Your task to perform on an android device: Clear the shopping cart on amazon. Add jbl flip 4 to the cart on amazon, then select checkout. Image 0: 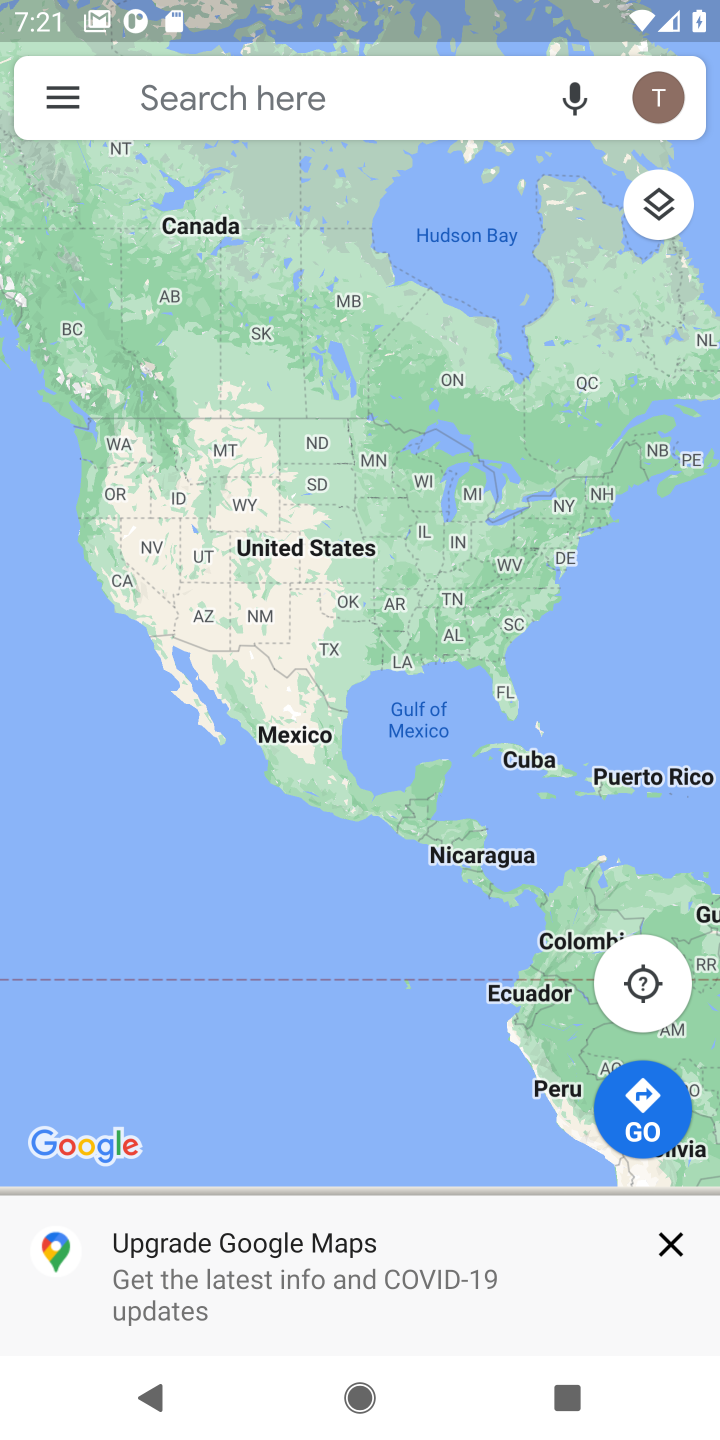
Step 0: click (677, 1251)
Your task to perform on an android device: Clear the shopping cart on amazon. Add jbl flip 4 to the cart on amazon, then select checkout. Image 1: 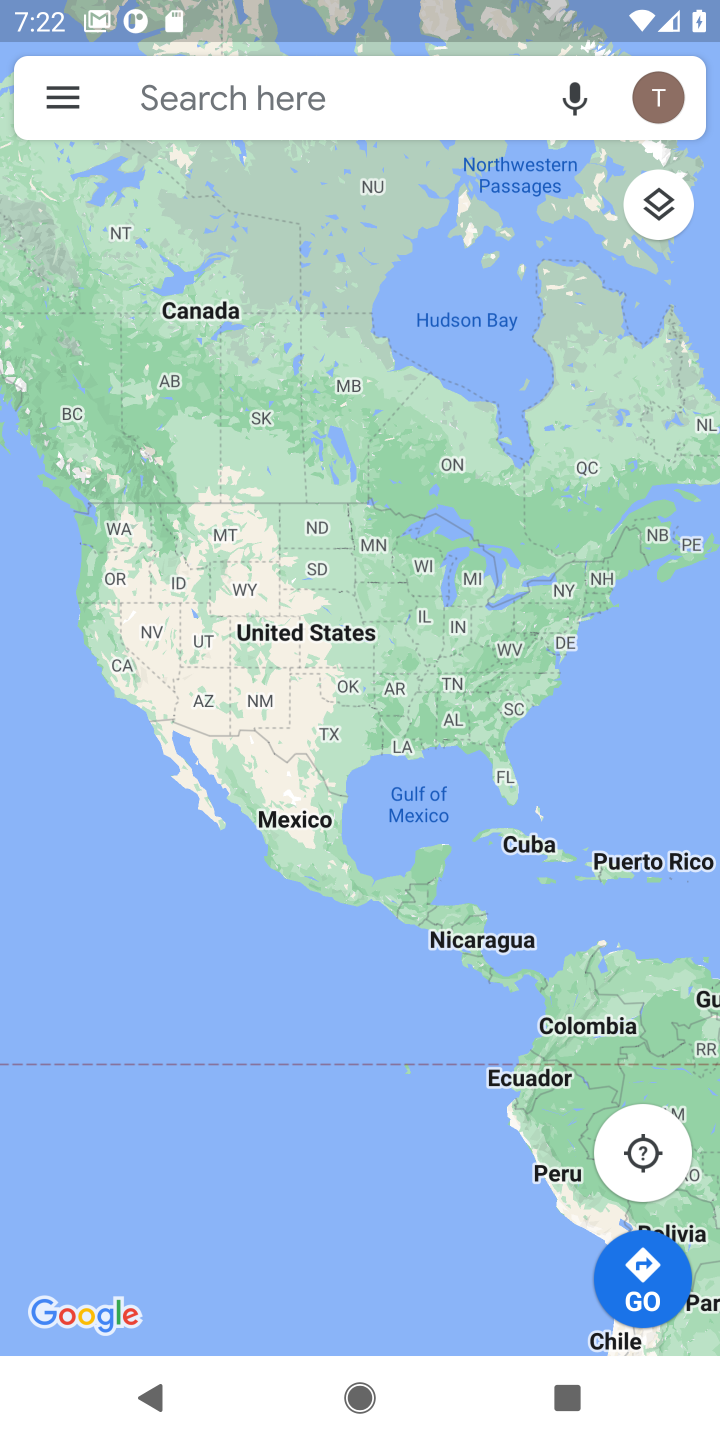
Step 1: press home button
Your task to perform on an android device: Clear the shopping cart on amazon. Add jbl flip 4 to the cart on amazon, then select checkout. Image 2: 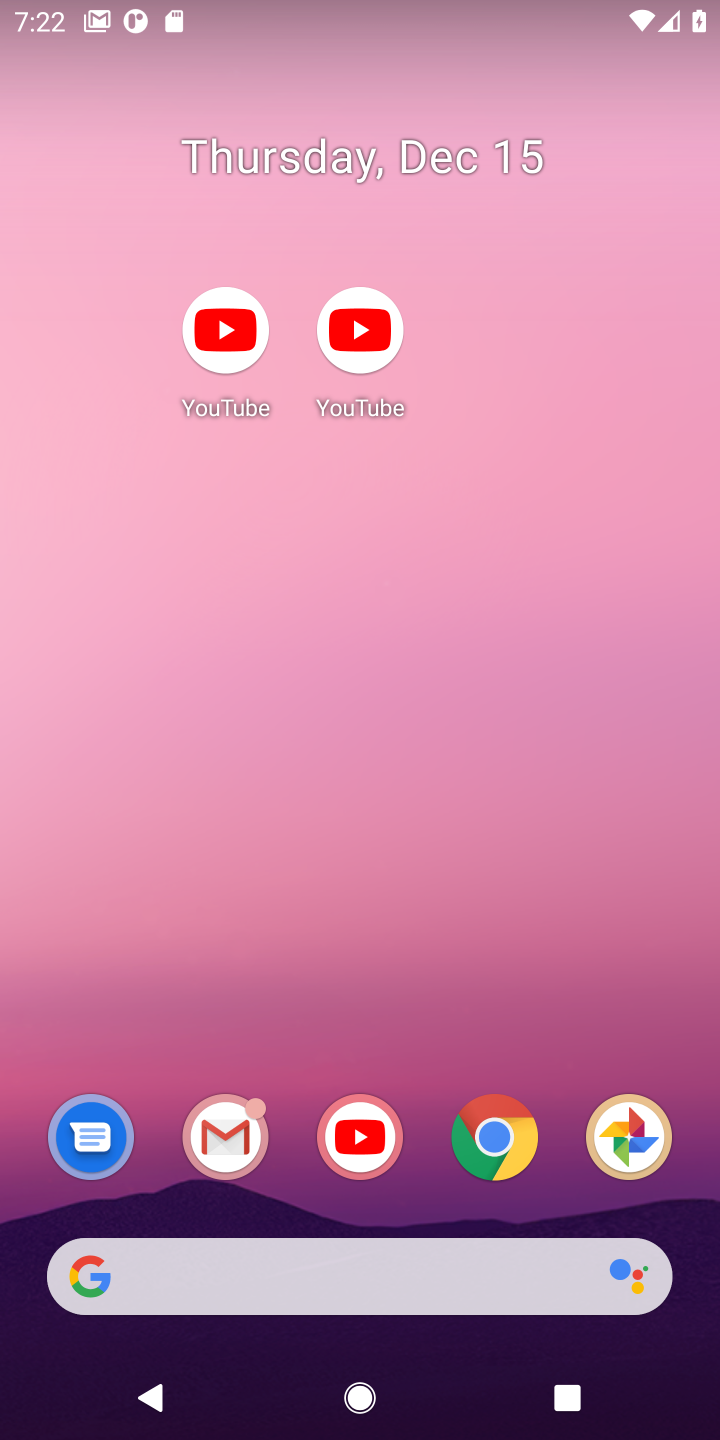
Step 2: drag from (368, 1018) to (437, 527)
Your task to perform on an android device: Clear the shopping cart on amazon. Add jbl flip 4 to the cart on amazon, then select checkout. Image 3: 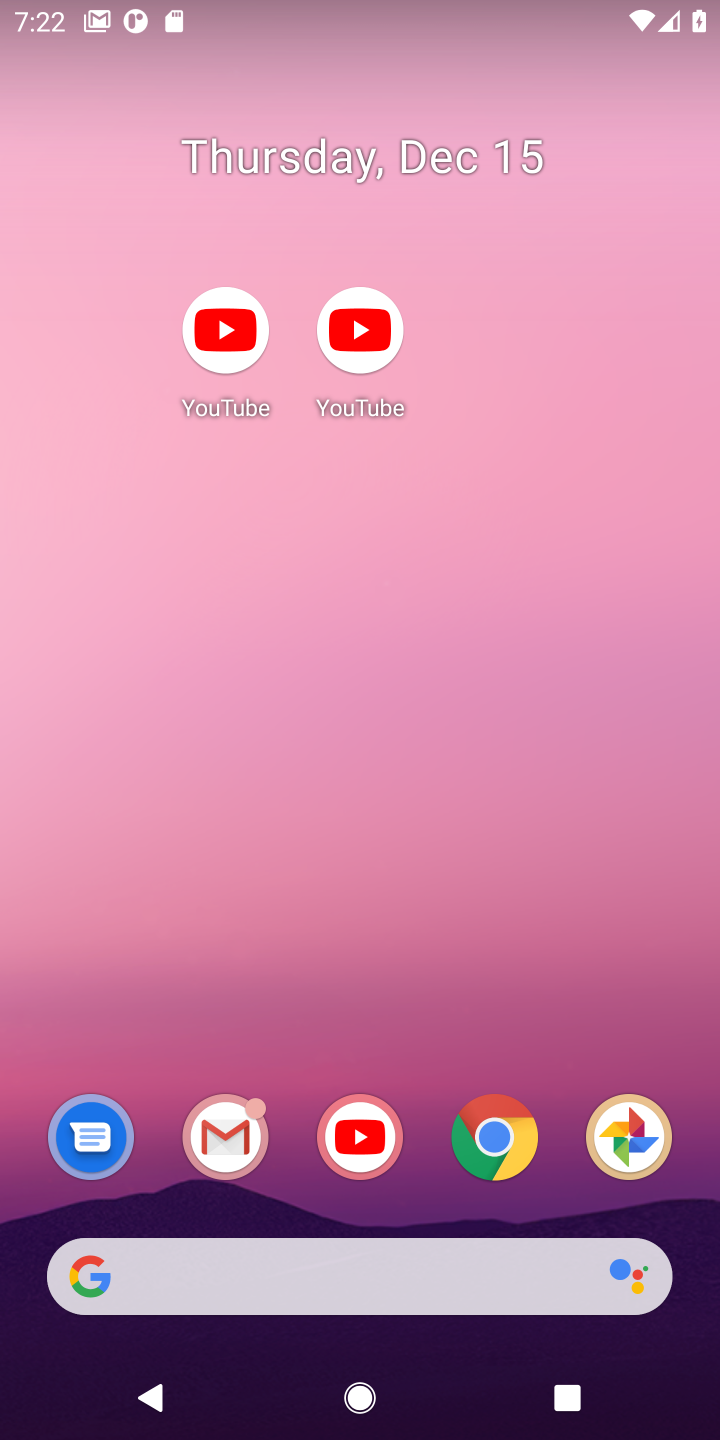
Step 3: drag from (360, 1106) to (378, 373)
Your task to perform on an android device: Clear the shopping cart on amazon. Add jbl flip 4 to the cart on amazon, then select checkout. Image 4: 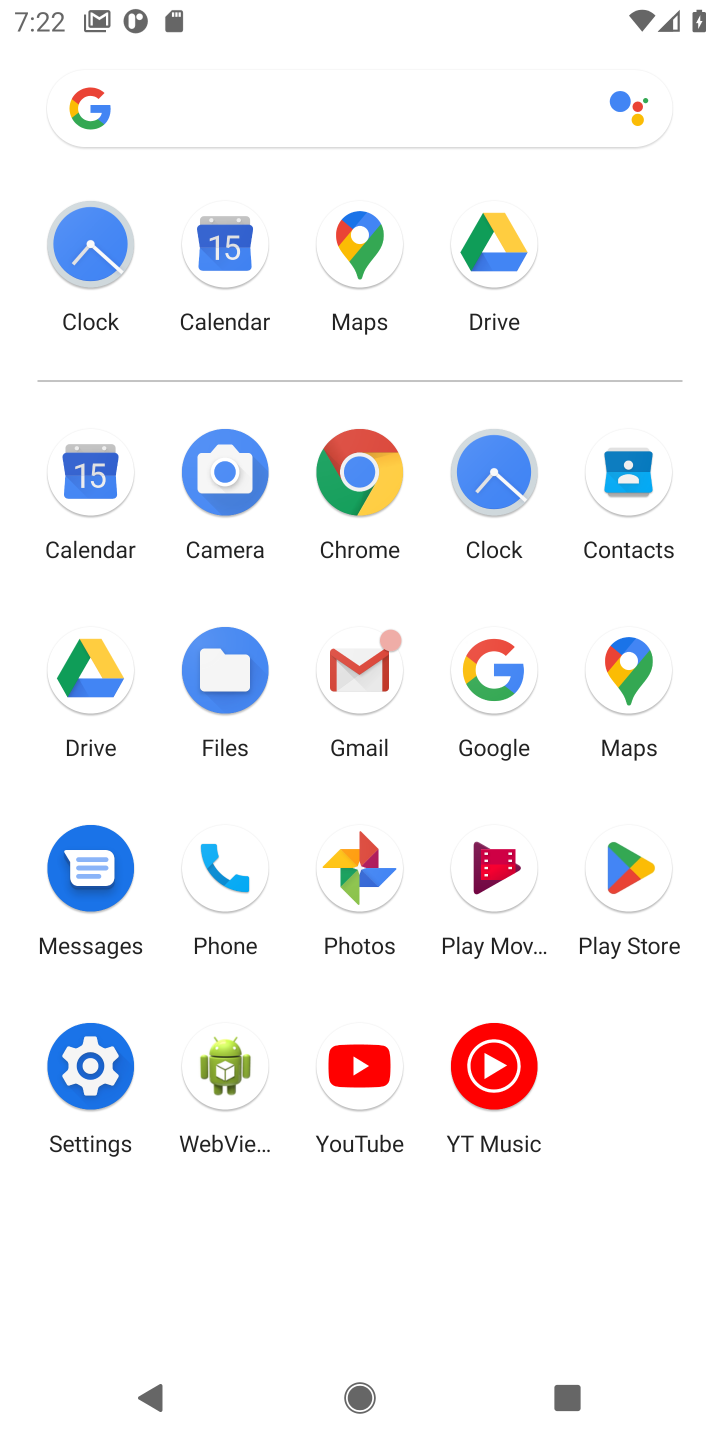
Step 4: click (489, 673)
Your task to perform on an android device: Clear the shopping cart on amazon. Add jbl flip 4 to the cart on amazon, then select checkout. Image 5: 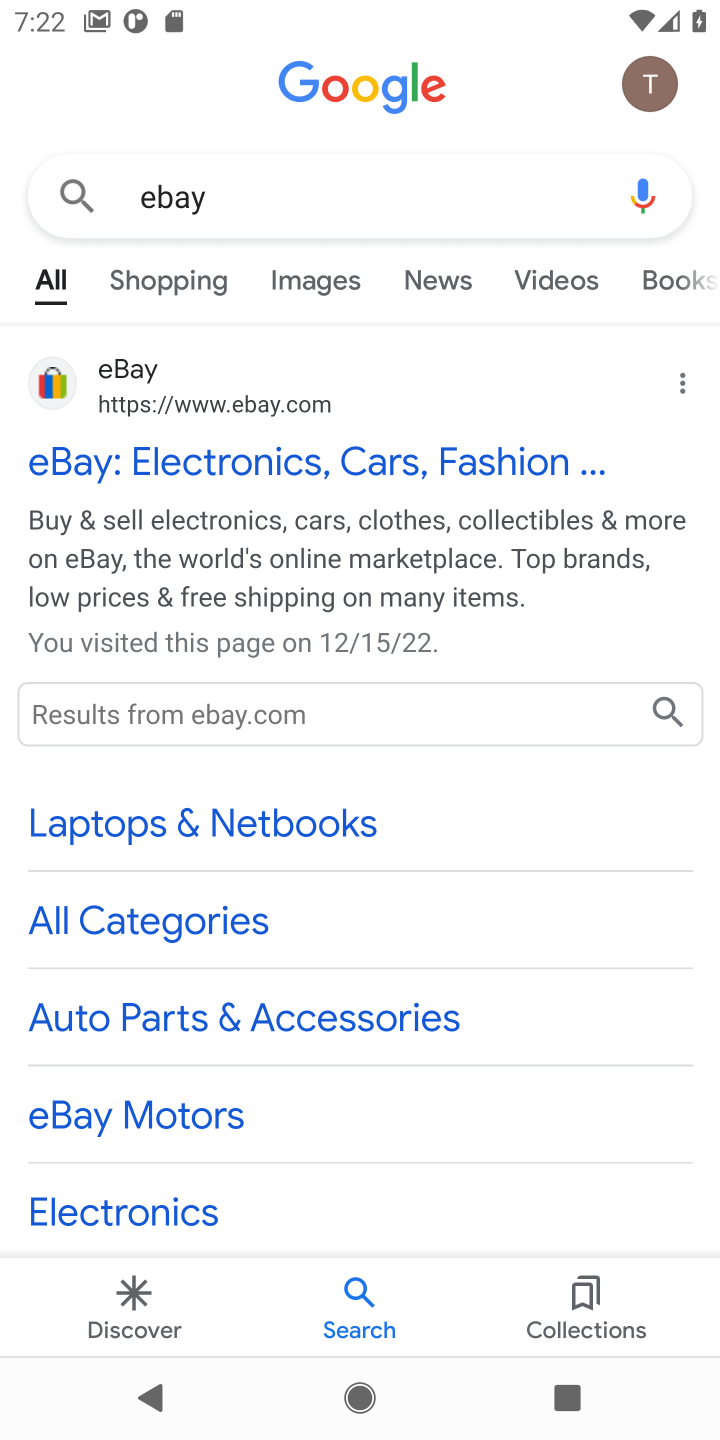
Step 5: click (212, 211)
Your task to perform on an android device: Clear the shopping cart on amazon. Add jbl flip 4 to the cart on amazon, then select checkout. Image 6: 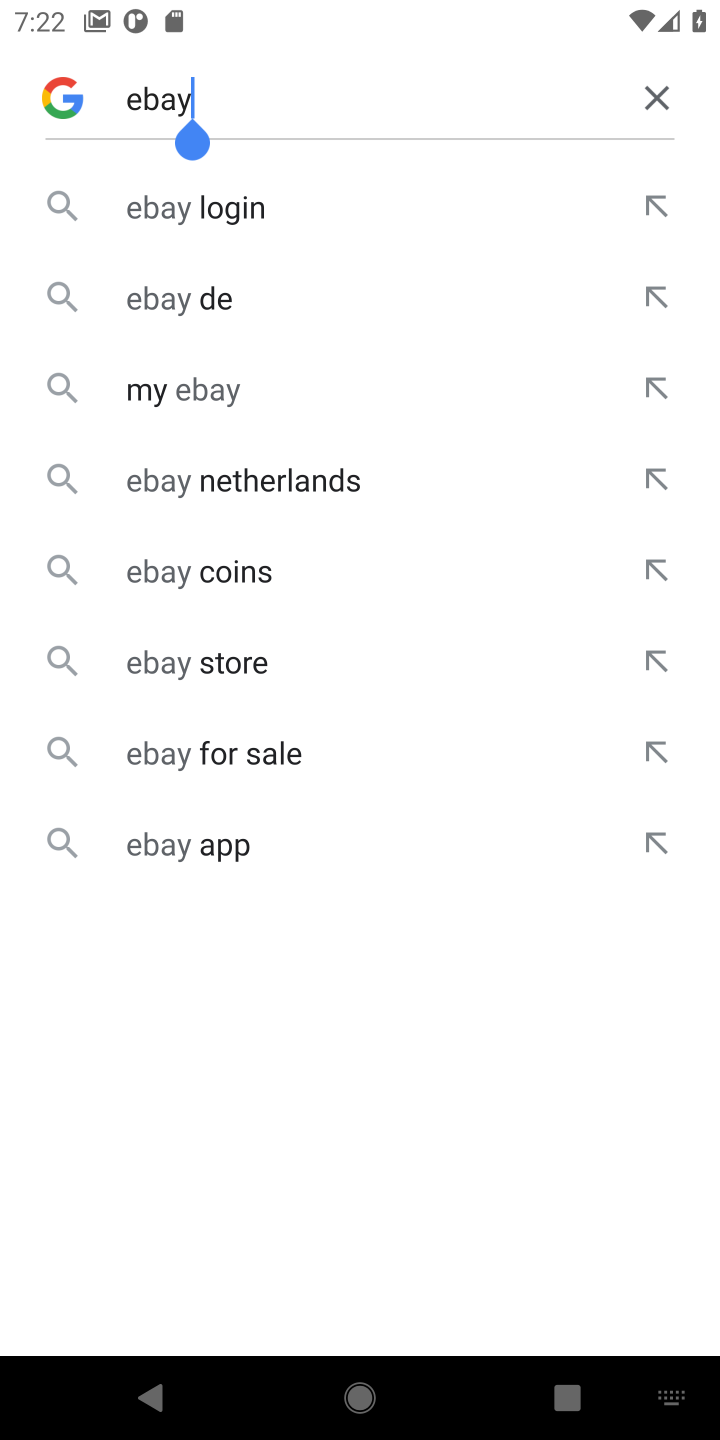
Step 6: click (648, 107)
Your task to perform on an android device: Clear the shopping cart on amazon. Add jbl flip 4 to the cart on amazon, then select checkout. Image 7: 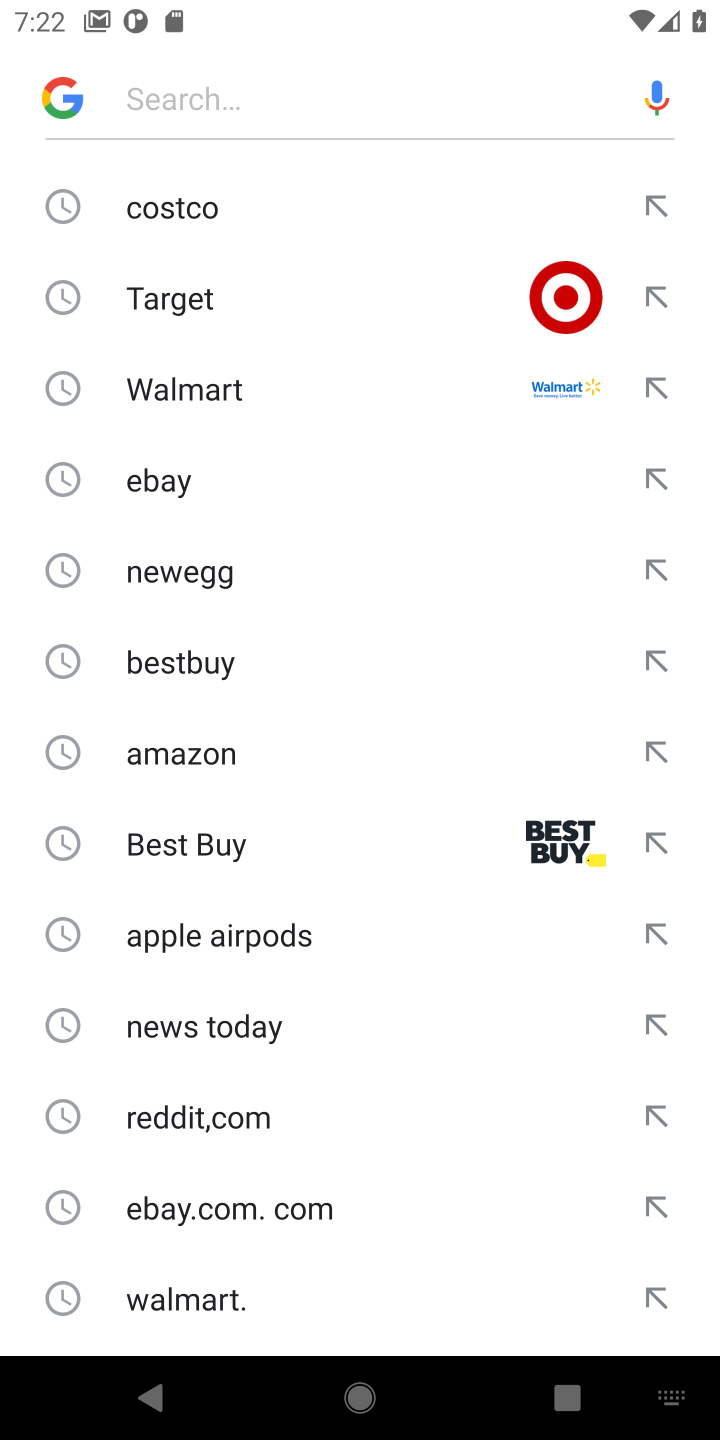
Step 7: click (189, 739)
Your task to perform on an android device: Clear the shopping cart on amazon. Add jbl flip 4 to the cart on amazon, then select checkout. Image 8: 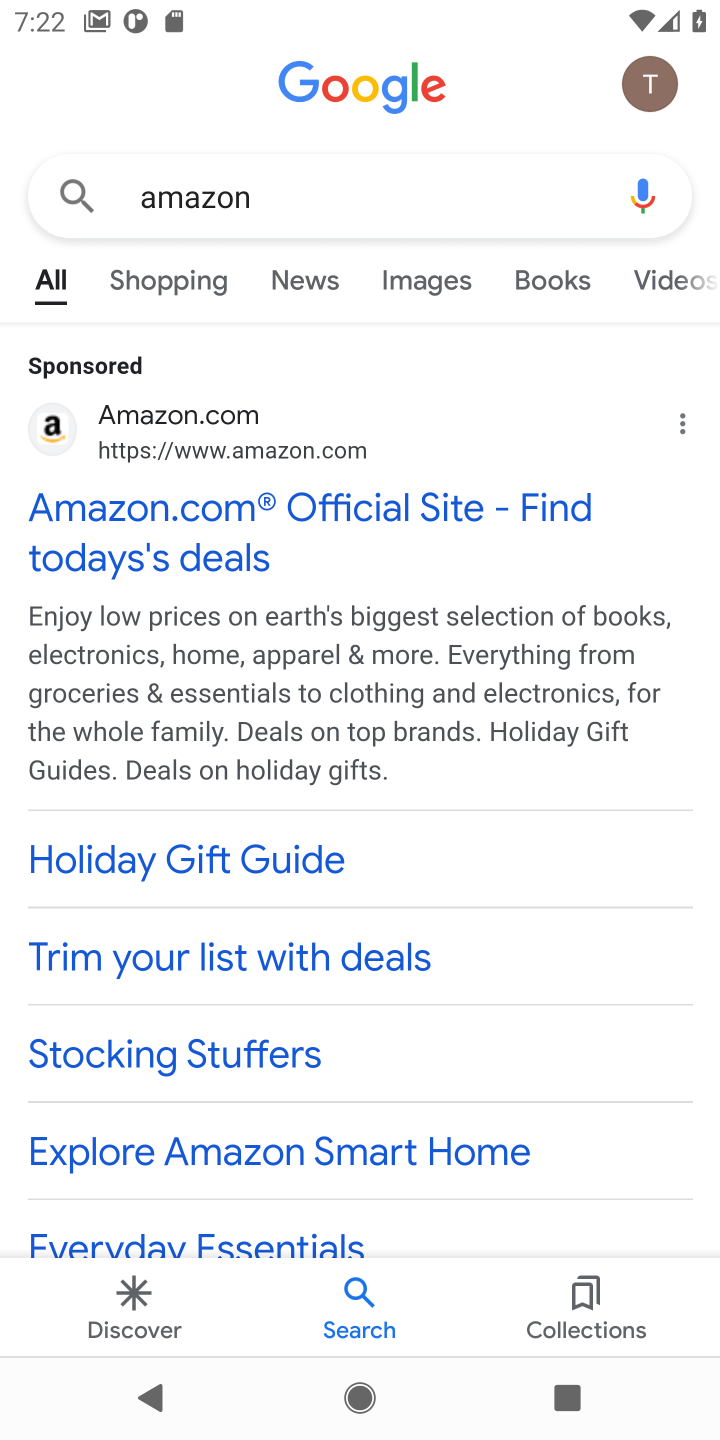
Step 8: click (186, 541)
Your task to perform on an android device: Clear the shopping cart on amazon. Add jbl flip 4 to the cart on amazon, then select checkout. Image 9: 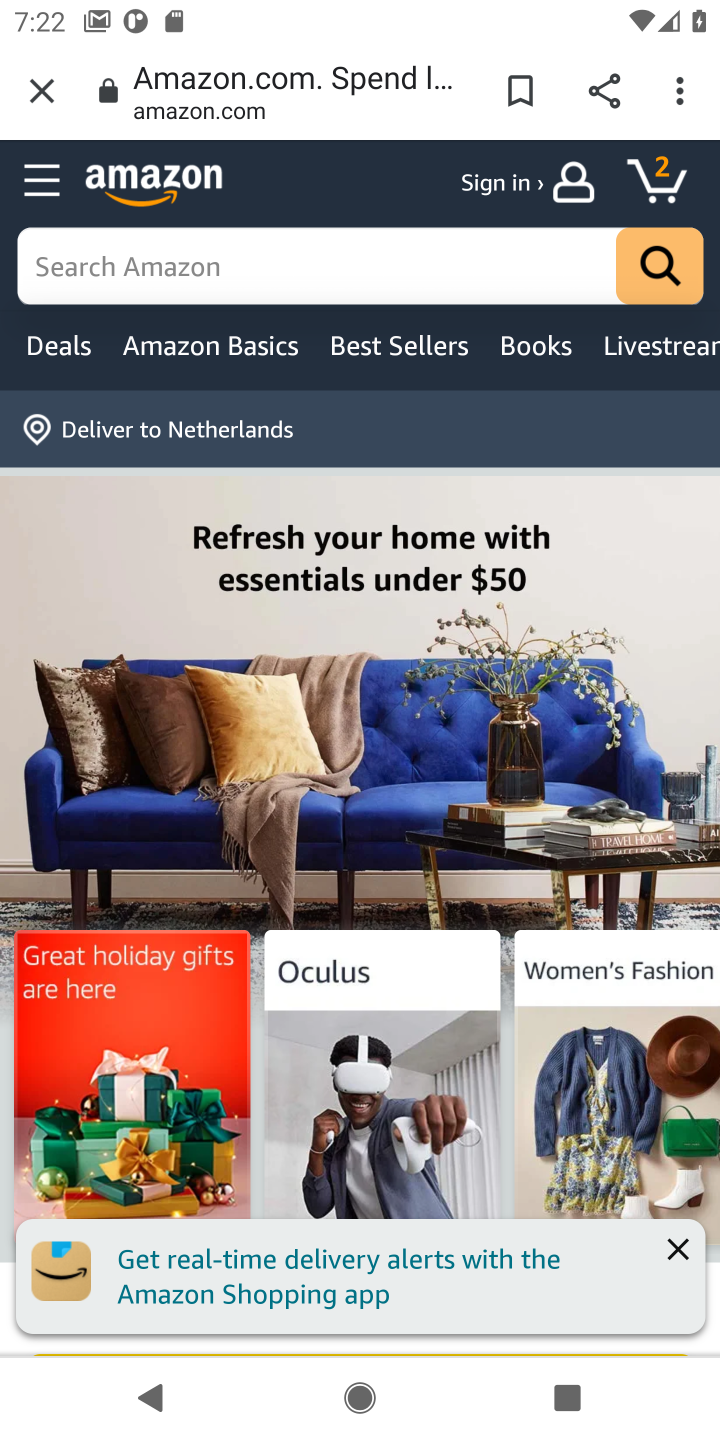
Step 9: click (662, 173)
Your task to perform on an android device: Clear the shopping cart on amazon. Add jbl flip 4 to the cart on amazon, then select checkout. Image 10: 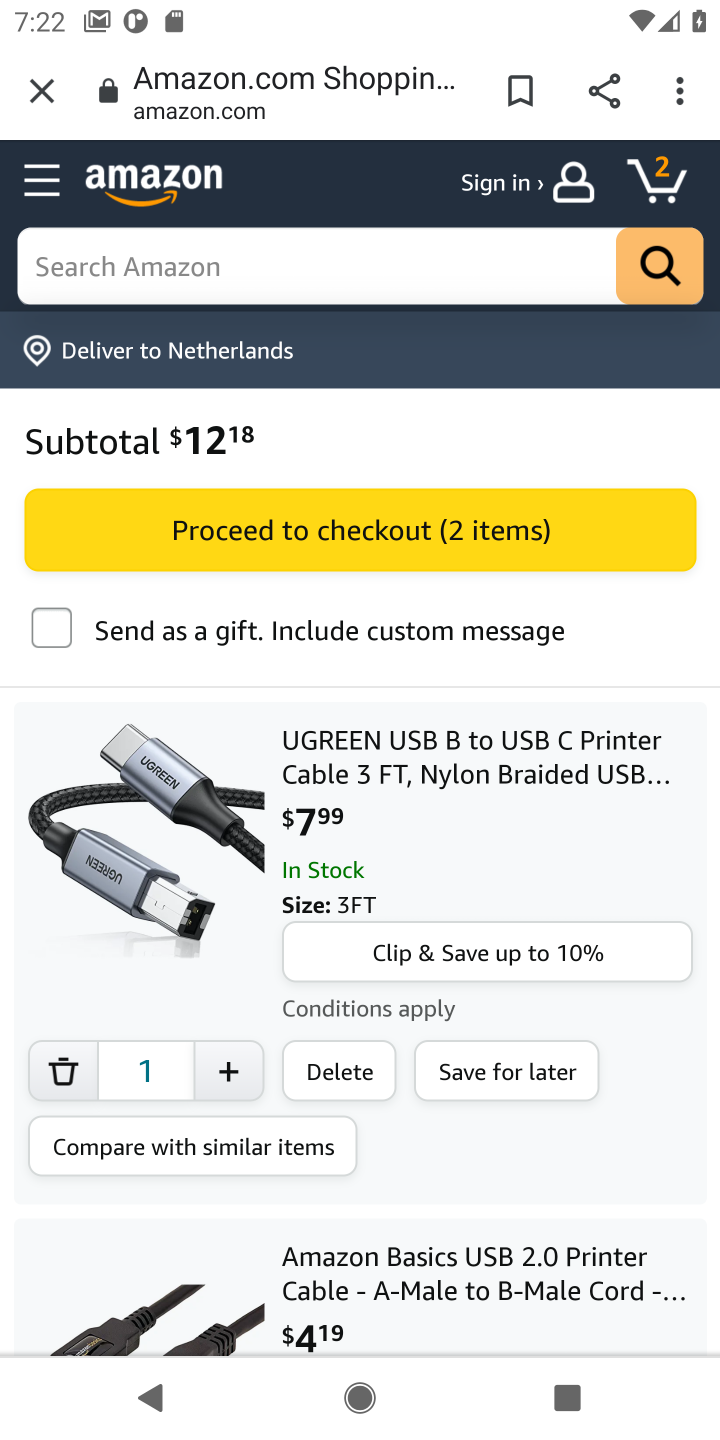
Step 10: click (53, 1067)
Your task to perform on an android device: Clear the shopping cart on amazon. Add jbl flip 4 to the cart on amazon, then select checkout. Image 11: 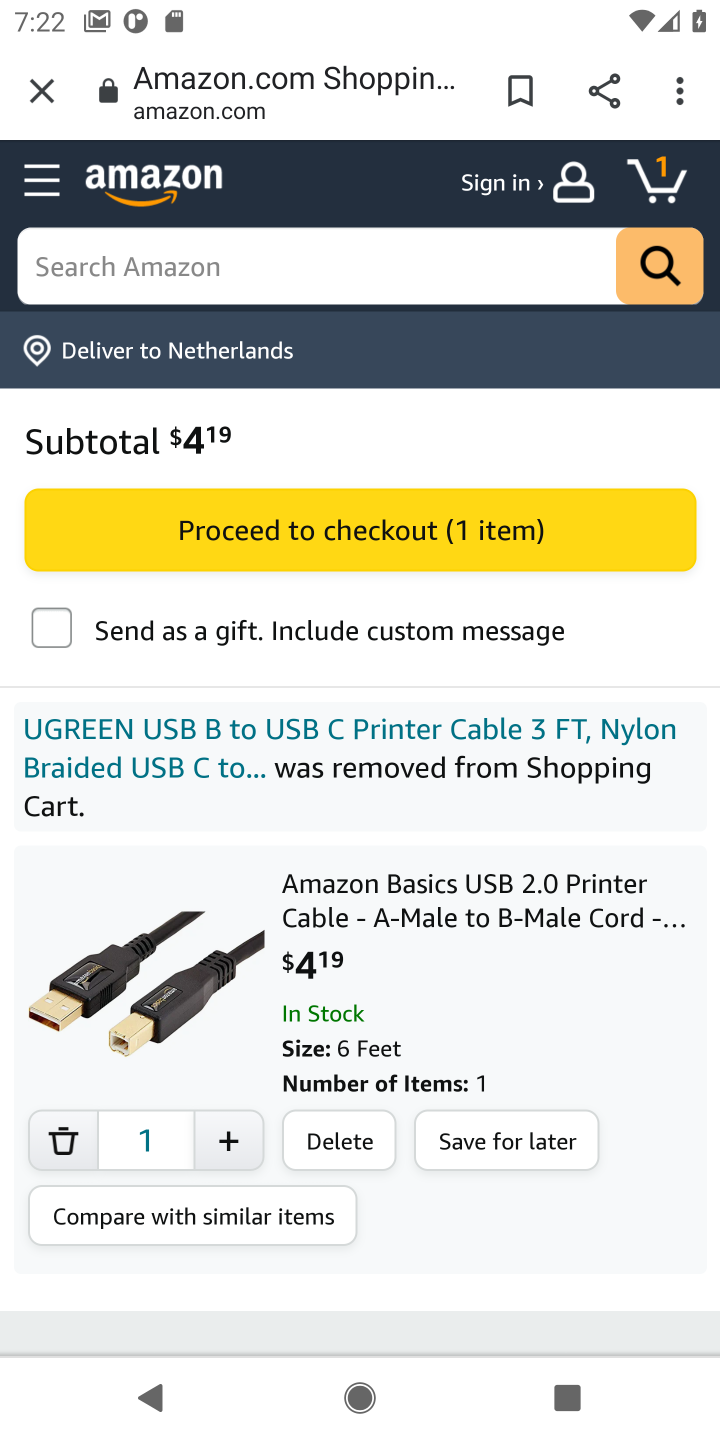
Step 11: click (59, 1126)
Your task to perform on an android device: Clear the shopping cart on amazon. Add jbl flip 4 to the cart on amazon, then select checkout. Image 12: 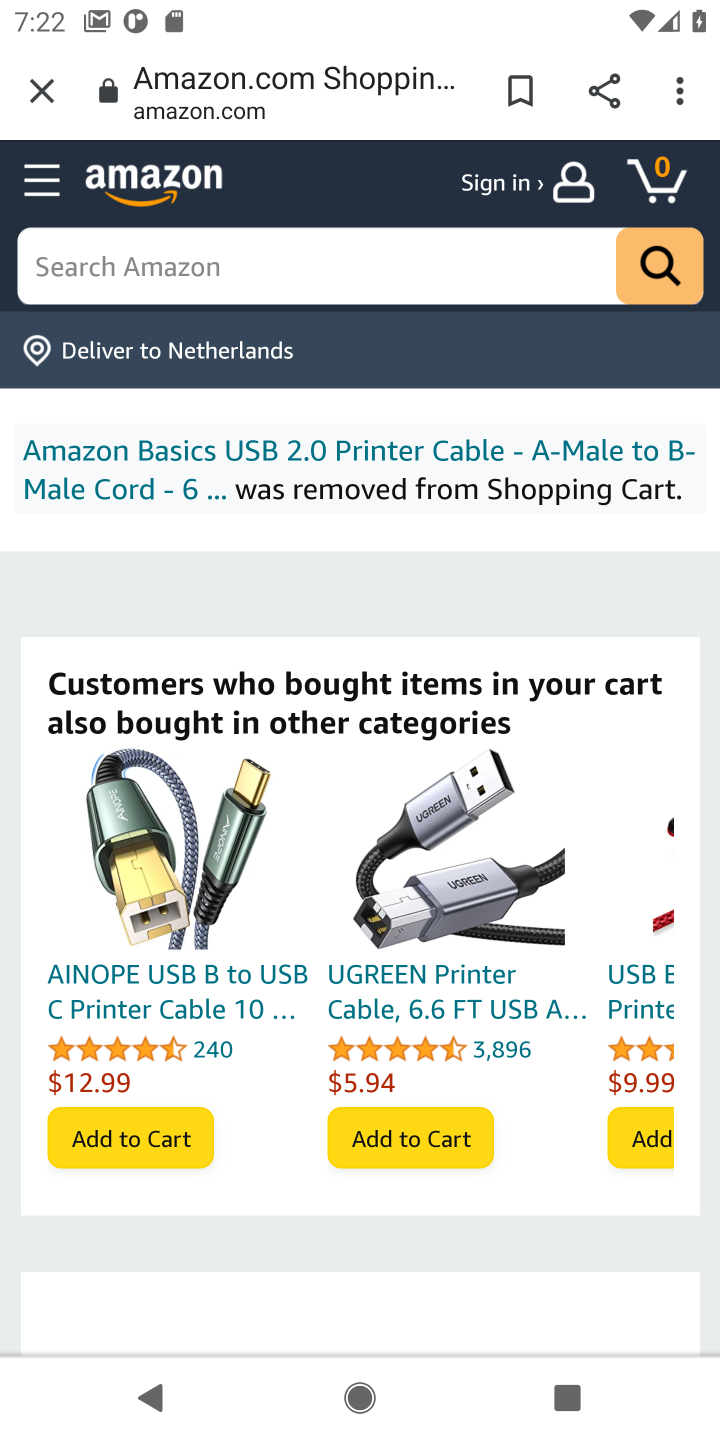
Step 12: click (307, 277)
Your task to perform on an android device: Clear the shopping cart on amazon. Add jbl flip 4 to the cart on amazon, then select checkout. Image 13: 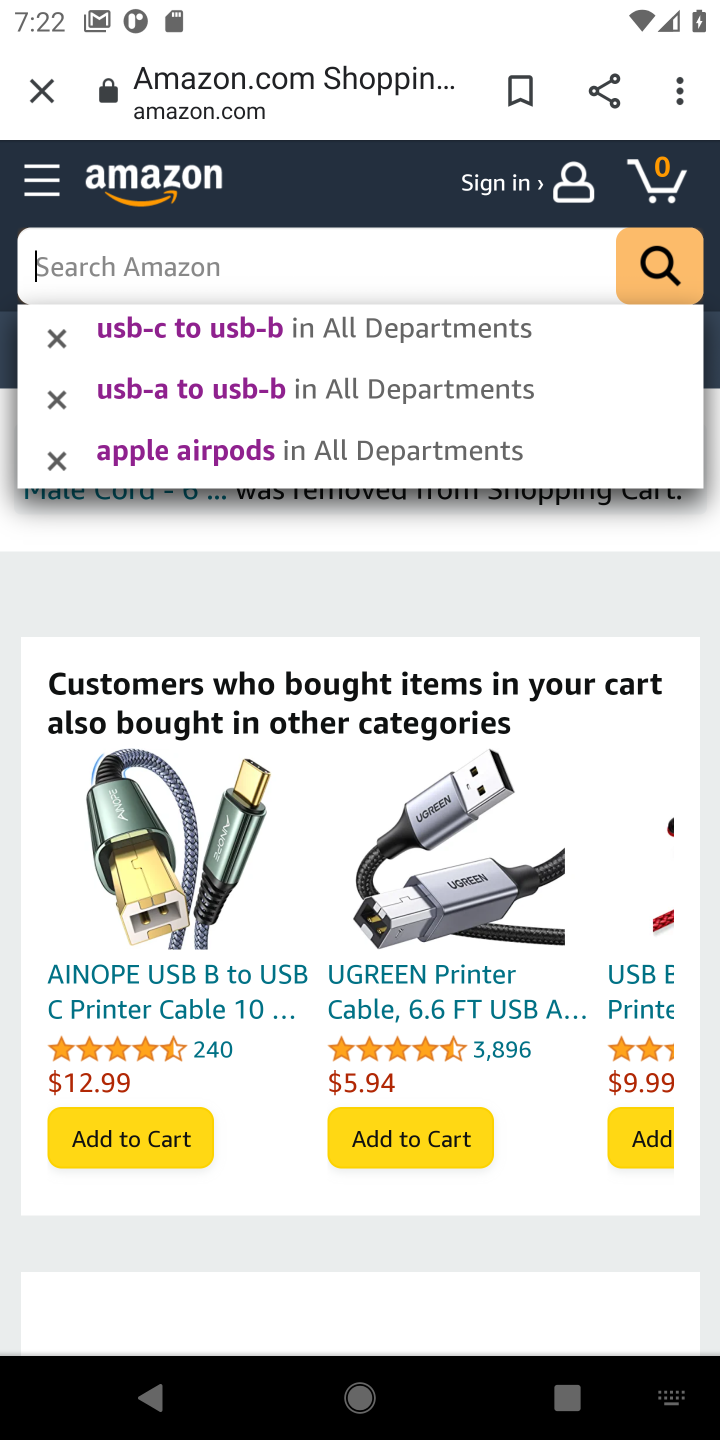
Step 13: type "jbl flip 4 "
Your task to perform on an android device: Clear the shopping cart on amazon. Add jbl flip 4 to the cart on amazon, then select checkout. Image 14: 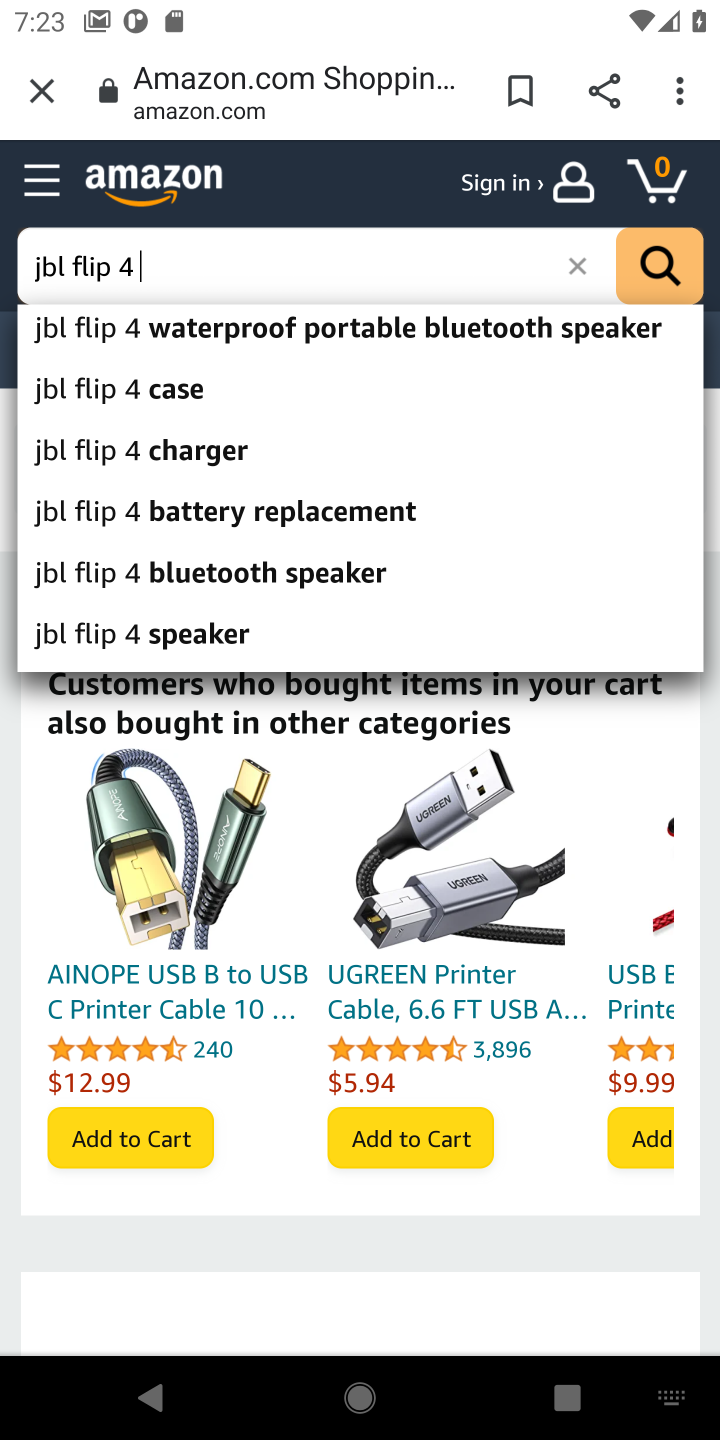
Step 14: click (152, 391)
Your task to perform on an android device: Clear the shopping cart on amazon. Add jbl flip 4 to the cart on amazon, then select checkout. Image 15: 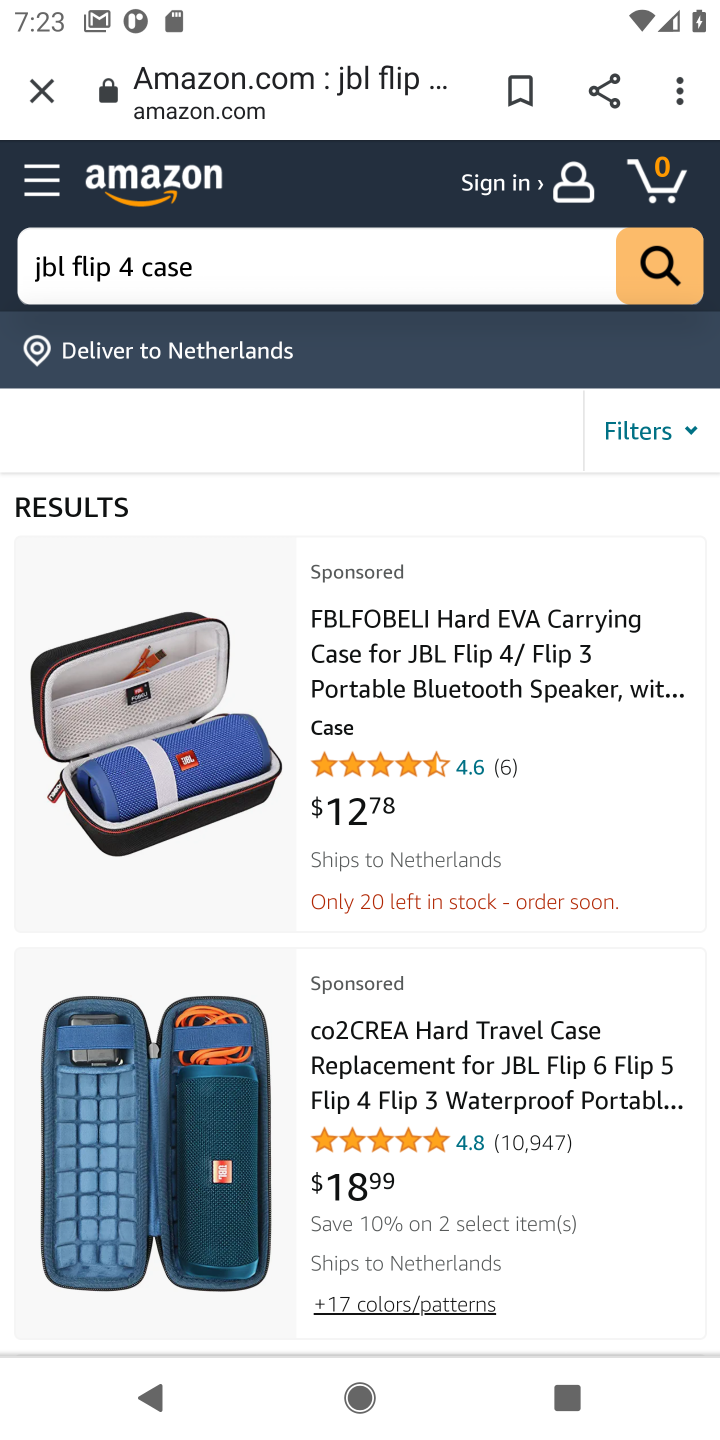
Step 15: click (421, 675)
Your task to perform on an android device: Clear the shopping cart on amazon. Add jbl flip 4 to the cart on amazon, then select checkout. Image 16: 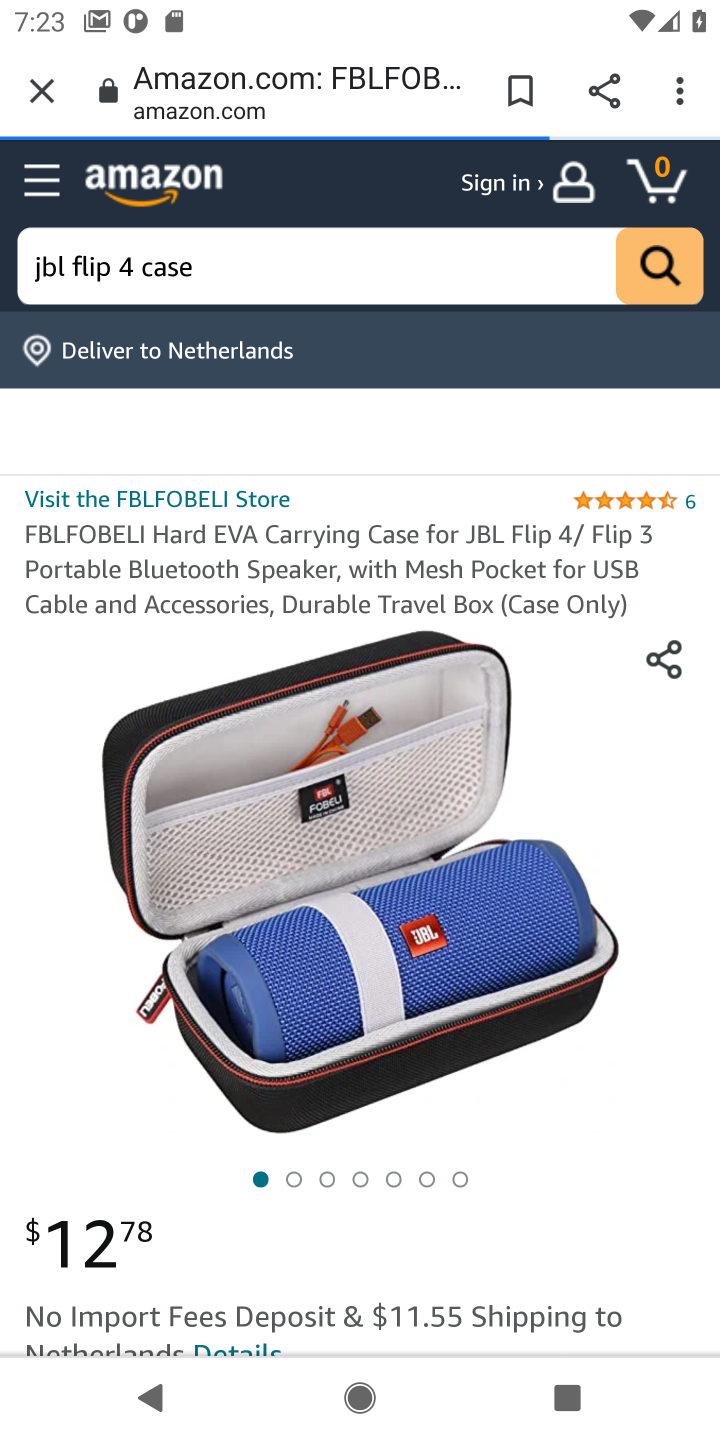
Step 16: drag from (566, 970) to (583, 489)
Your task to perform on an android device: Clear the shopping cart on amazon. Add jbl flip 4 to the cart on amazon, then select checkout. Image 17: 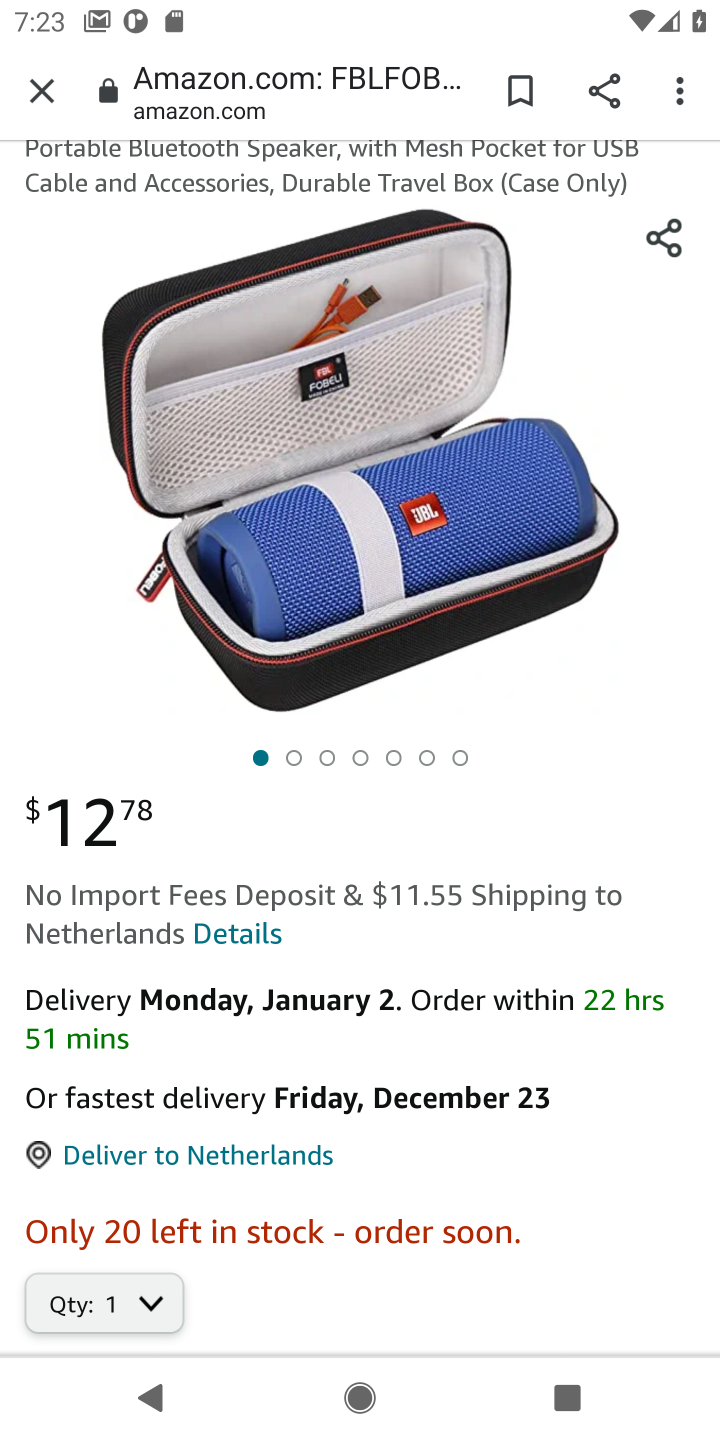
Step 17: drag from (466, 1243) to (443, 592)
Your task to perform on an android device: Clear the shopping cart on amazon. Add jbl flip 4 to the cart on amazon, then select checkout. Image 18: 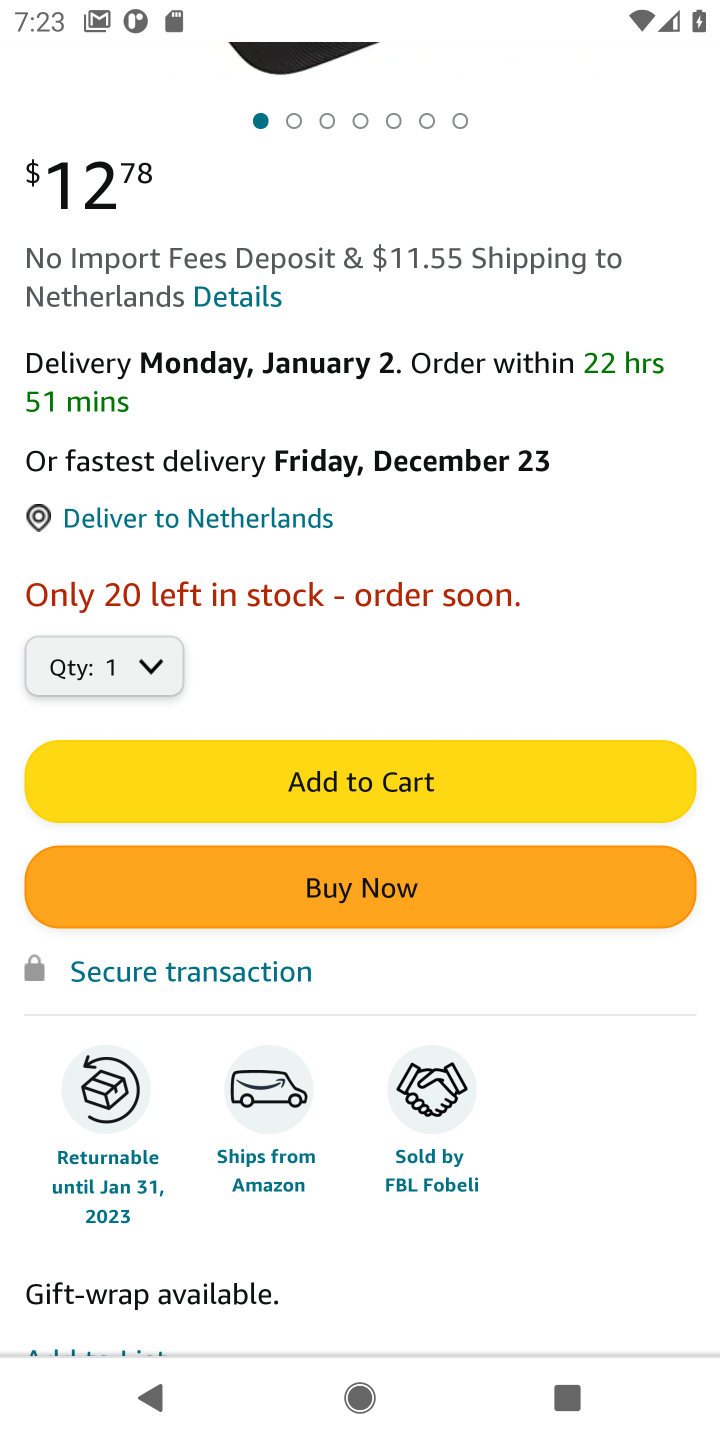
Step 18: click (379, 762)
Your task to perform on an android device: Clear the shopping cart on amazon. Add jbl flip 4 to the cart on amazon, then select checkout. Image 19: 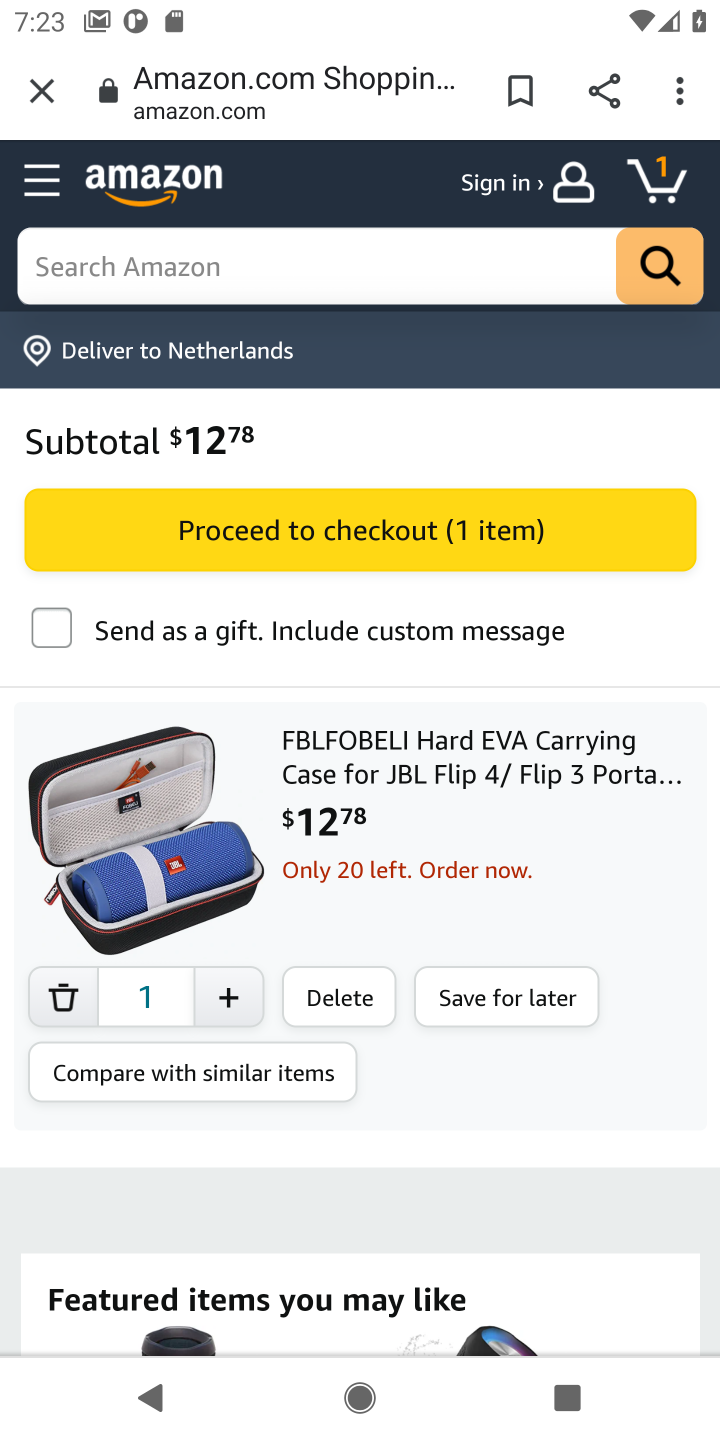
Step 19: click (357, 546)
Your task to perform on an android device: Clear the shopping cart on amazon. Add jbl flip 4 to the cart on amazon, then select checkout. Image 20: 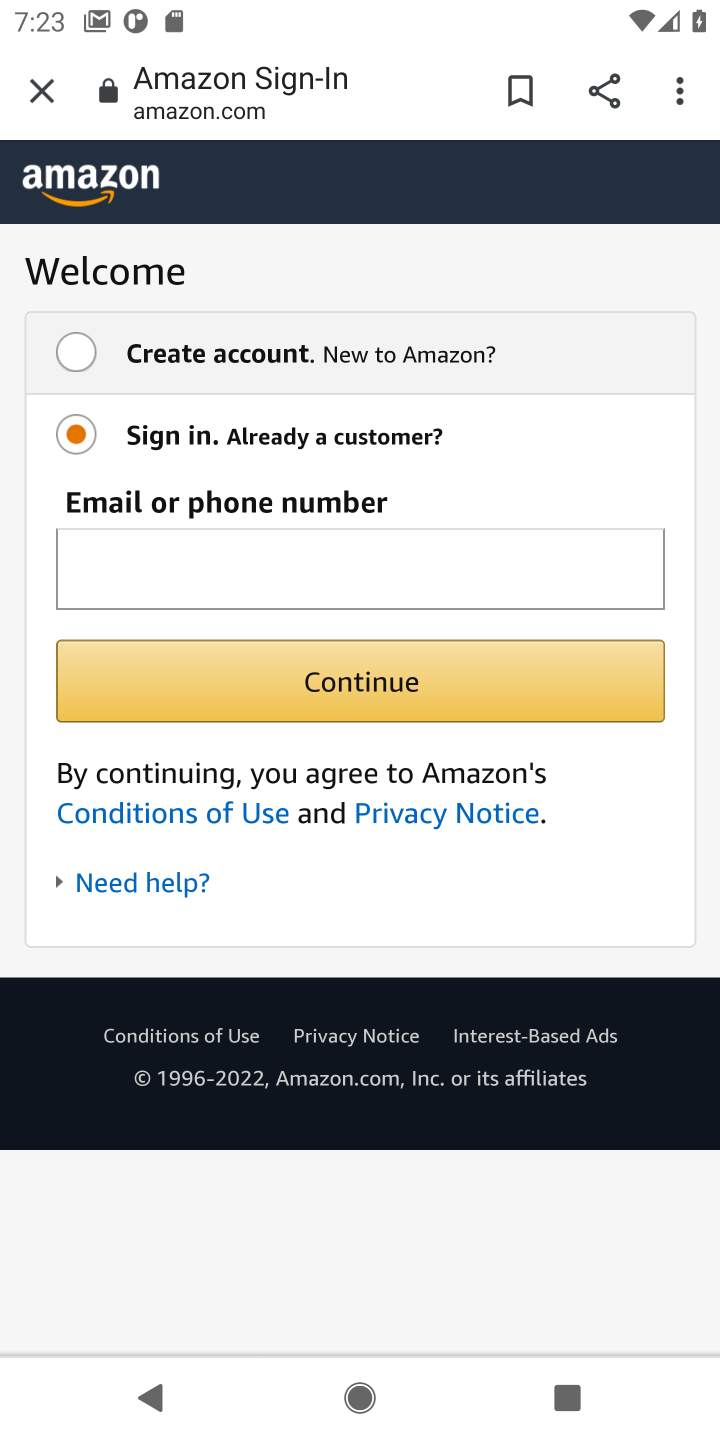
Step 20: task complete